Your task to perform on an android device: turn off airplane mode Image 0: 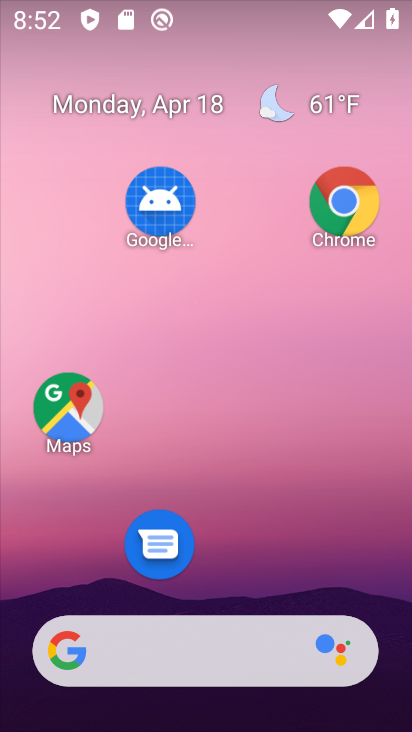
Step 0: drag from (207, 612) to (208, 10)
Your task to perform on an android device: turn off airplane mode Image 1: 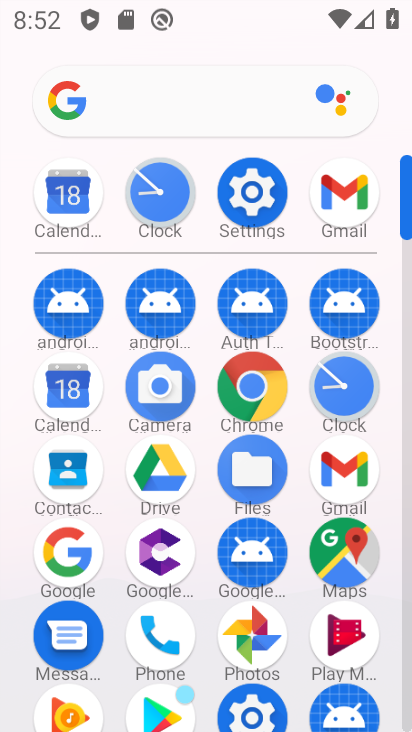
Step 1: click (250, 185)
Your task to perform on an android device: turn off airplane mode Image 2: 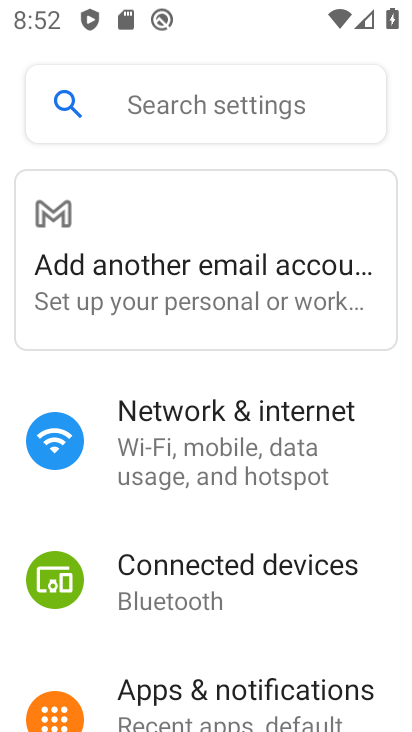
Step 2: click (145, 475)
Your task to perform on an android device: turn off airplane mode Image 3: 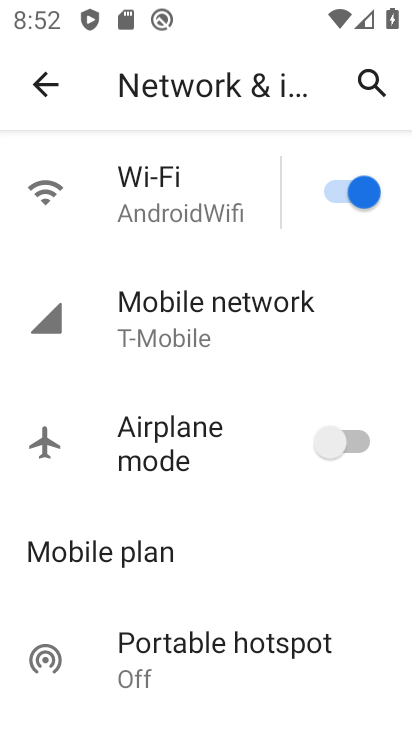
Step 3: task complete